Your task to perform on an android device: turn off data saver in the chrome app Image 0: 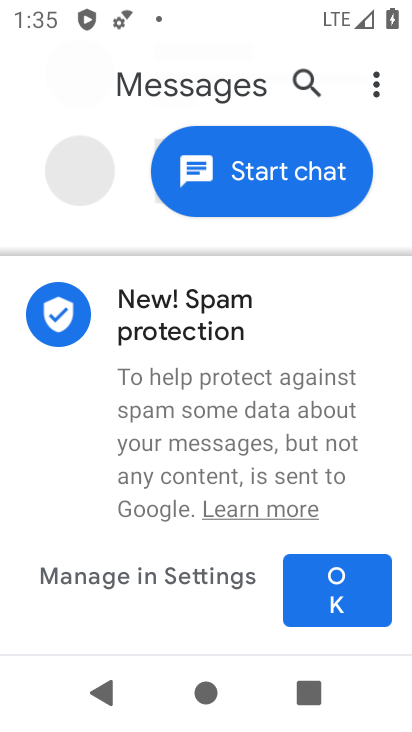
Step 0: press home button
Your task to perform on an android device: turn off data saver in the chrome app Image 1: 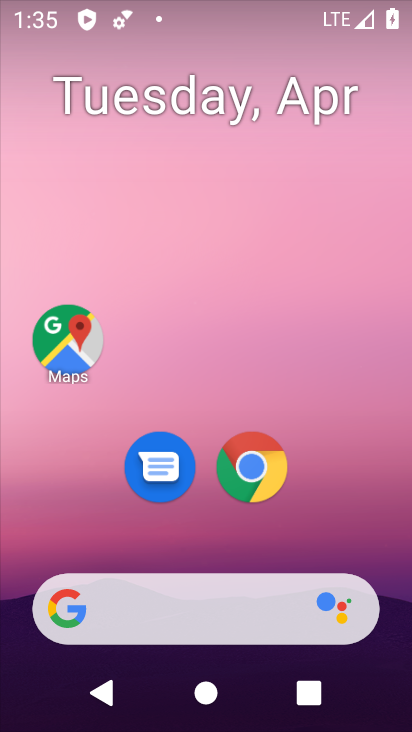
Step 1: drag from (384, 534) to (368, 88)
Your task to perform on an android device: turn off data saver in the chrome app Image 2: 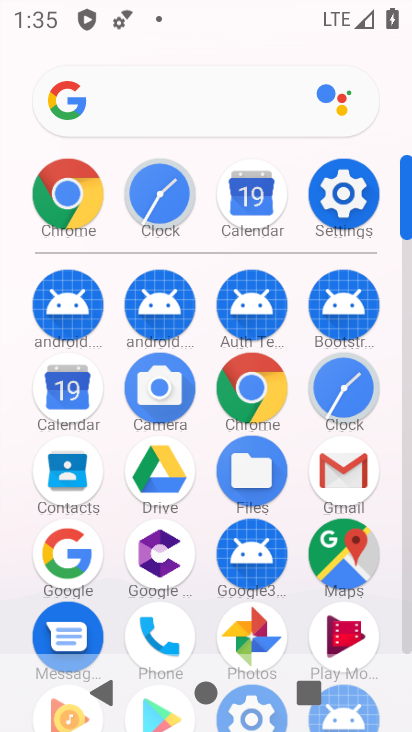
Step 2: click (261, 404)
Your task to perform on an android device: turn off data saver in the chrome app Image 3: 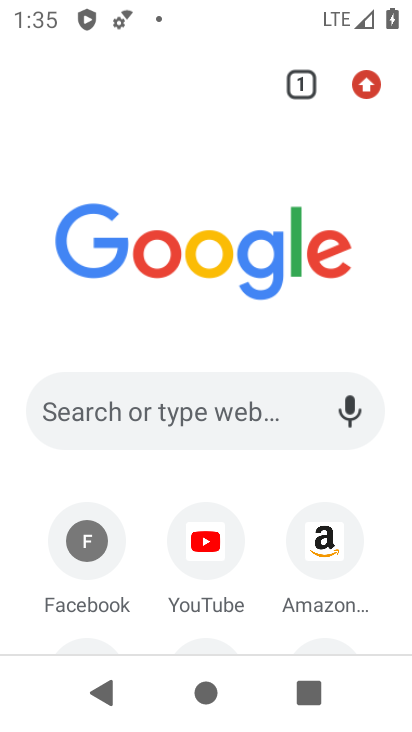
Step 3: click (359, 85)
Your task to perform on an android device: turn off data saver in the chrome app Image 4: 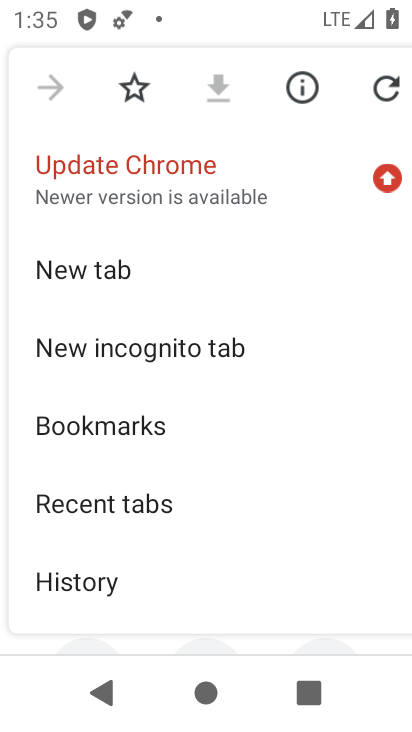
Step 4: drag from (322, 553) to (336, 337)
Your task to perform on an android device: turn off data saver in the chrome app Image 5: 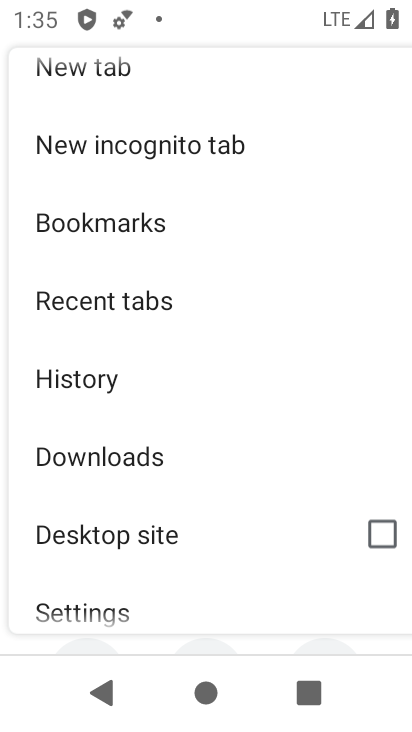
Step 5: drag from (279, 560) to (278, 289)
Your task to perform on an android device: turn off data saver in the chrome app Image 6: 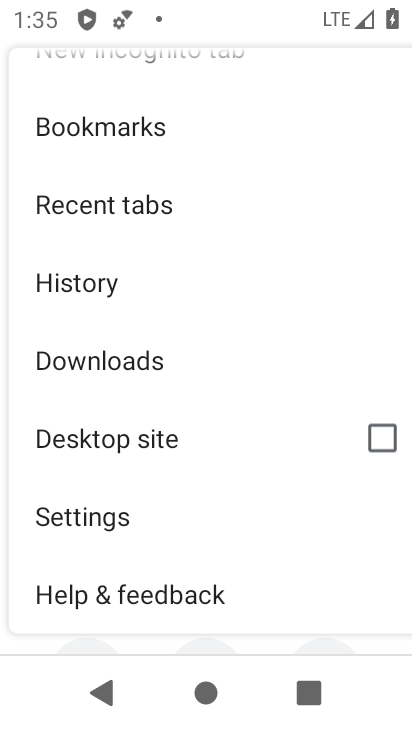
Step 6: click (112, 519)
Your task to perform on an android device: turn off data saver in the chrome app Image 7: 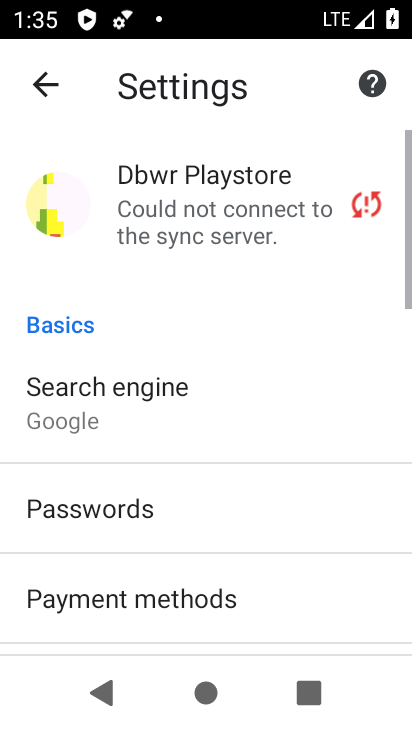
Step 7: drag from (278, 578) to (277, 354)
Your task to perform on an android device: turn off data saver in the chrome app Image 8: 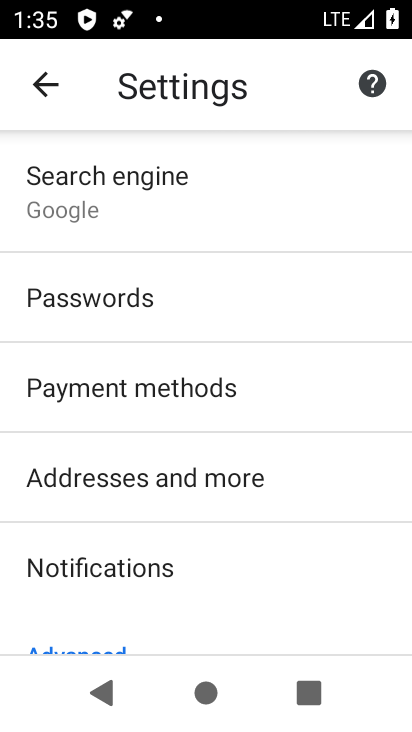
Step 8: drag from (294, 572) to (322, 370)
Your task to perform on an android device: turn off data saver in the chrome app Image 9: 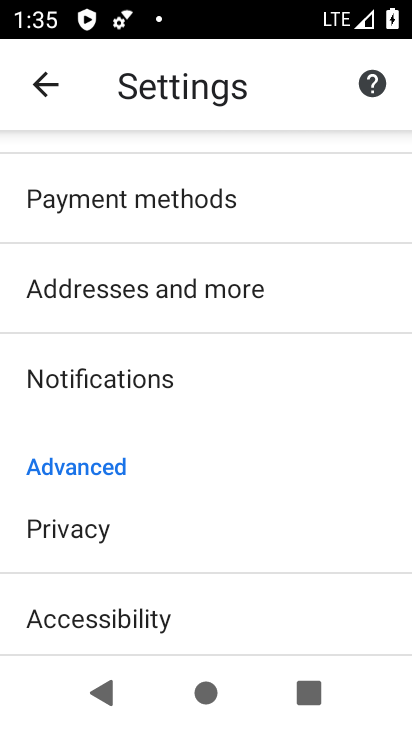
Step 9: drag from (319, 594) to (327, 362)
Your task to perform on an android device: turn off data saver in the chrome app Image 10: 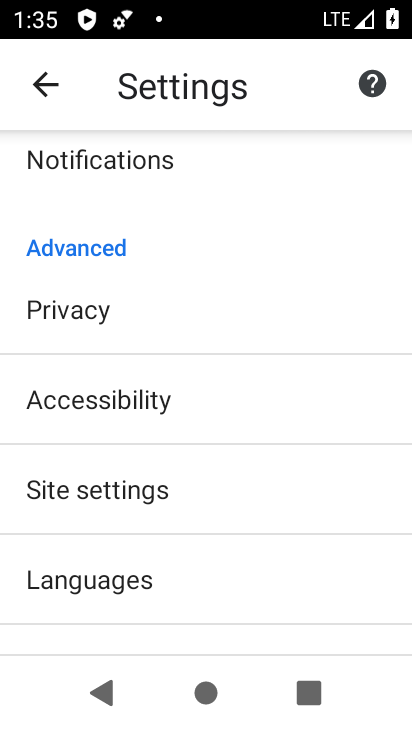
Step 10: drag from (316, 578) to (331, 348)
Your task to perform on an android device: turn off data saver in the chrome app Image 11: 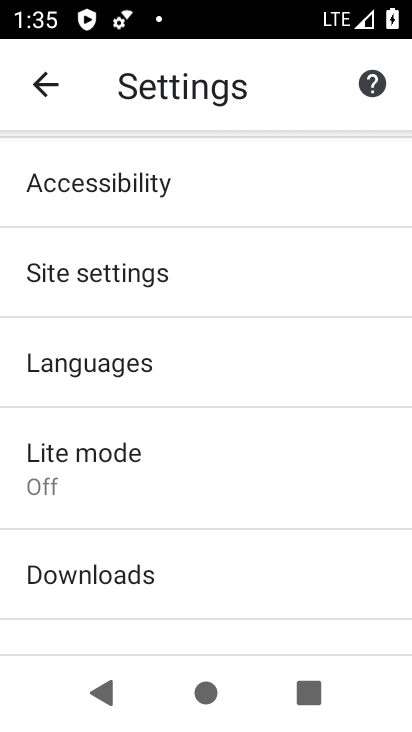
Step 11: drag from (349, 575) to (359, 369)
Your task to perform on an android device: turn off data saver in the chrome app Image 12: 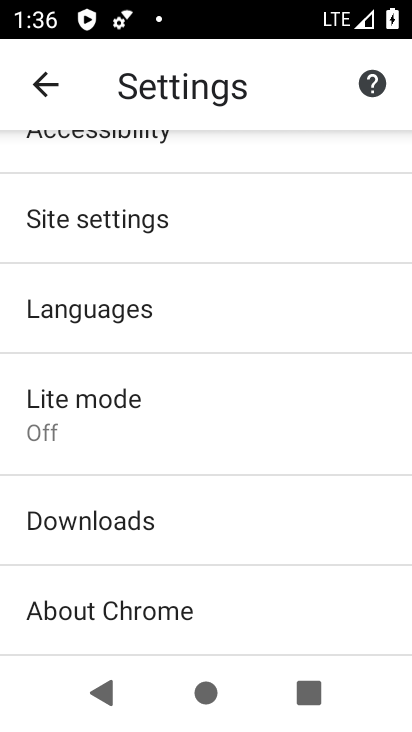
Step 12: click (263, 403)
Your task to perform on an android device: turn off data saver in the chrome app Image 13: 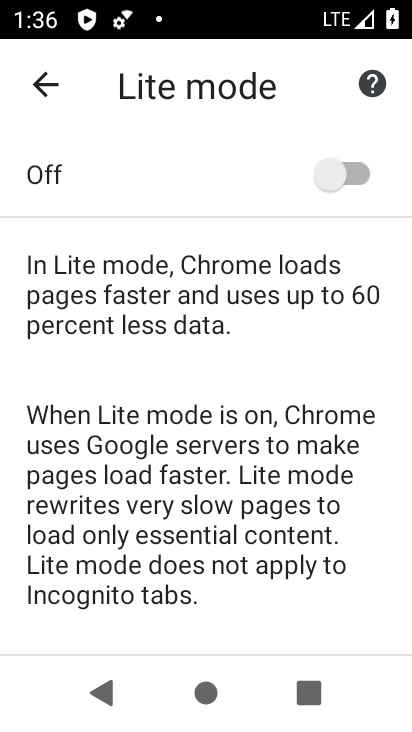
Step 13: task complete